Your task to perform on an android device: see creations saved in the google photos Image 0: 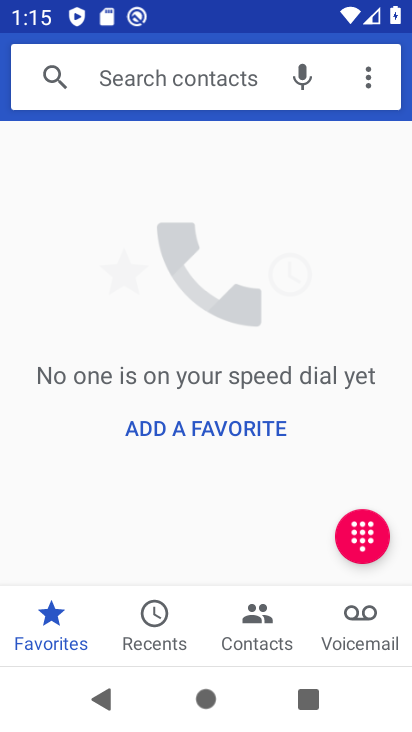
Step 0: press home button
Your task to perform on an android device: see creations saved in the google photos Image 1: 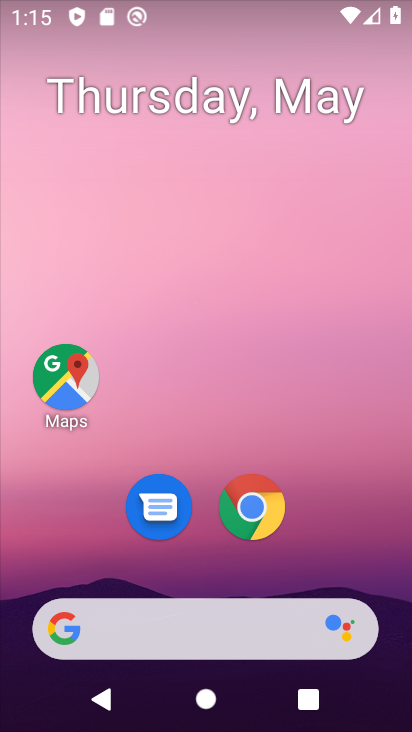
Step 1: drag from (312, 570) to (318, 196)
Your task to perform on an android device: see creations saved in the google photos Image 2: 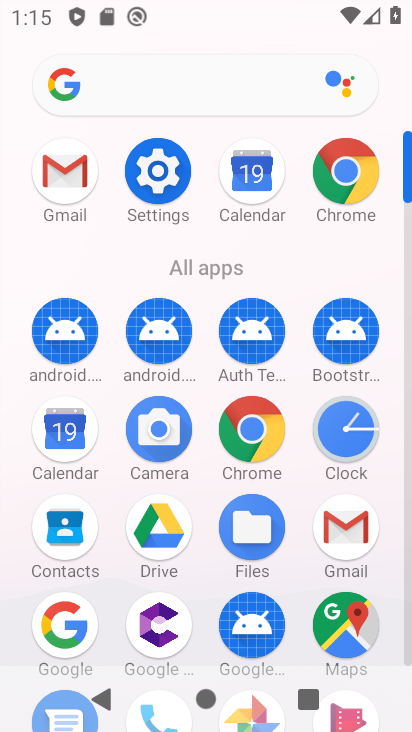
Step 2: drag from (192, 596) to (242, 269)
Your task to perform on an android device: see creations saved in the google photos Image 3: 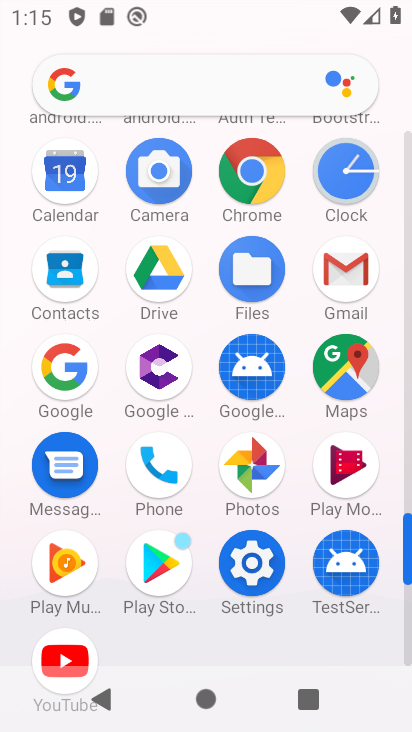
Step 3: click (259, 465)
Your task to perform on an android device: see creations saved in the google photos Image 4: 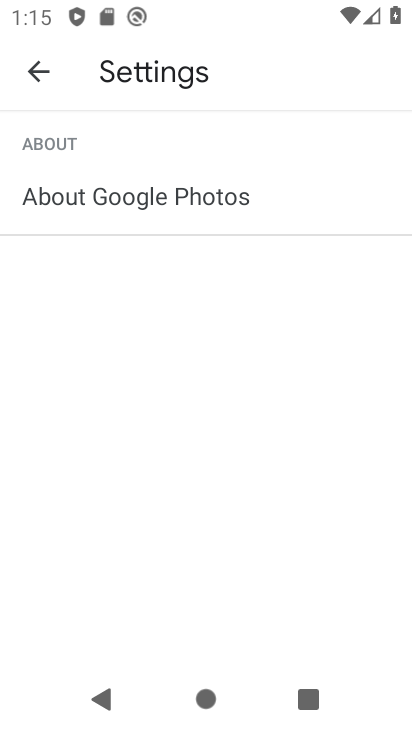
Step 4: click (48, 67)
Your task to perform on an android device: see creations saved in the google photos Image 5: 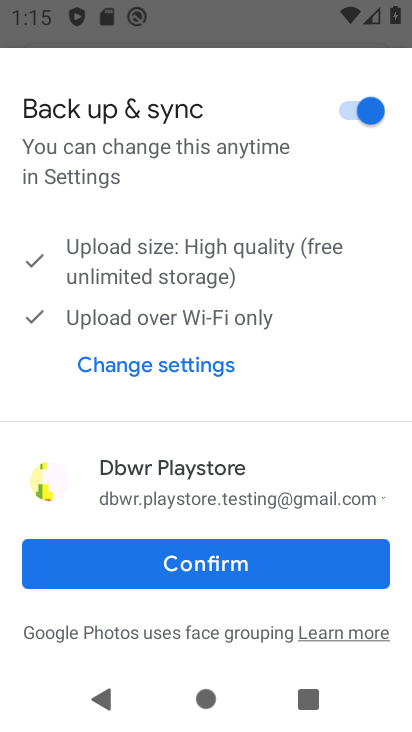
Step 5: click (165, 553)
Your task to perform on an android device: see creations saved in the google photos Image 6: 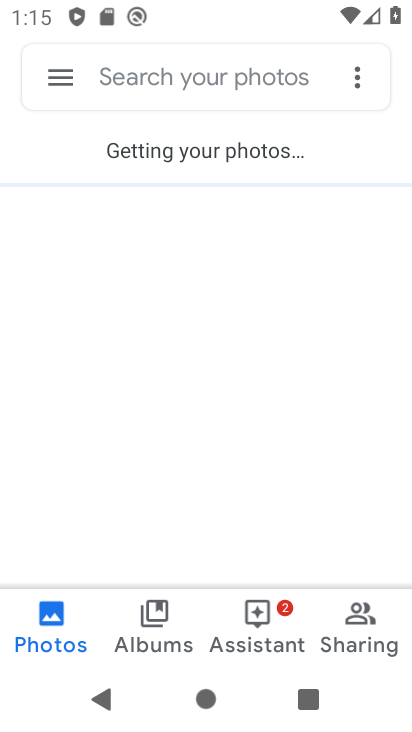
Step 6: click (158, 605)
Your task to perform on an android device: see creations saved in the google photos Image 7: 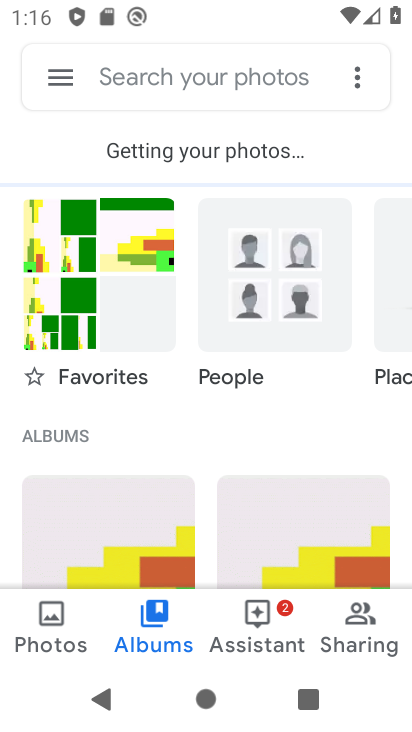
Step 7: click (61, 222)
Your task to perform on an android device: see creations saved in the google photos Image 8: 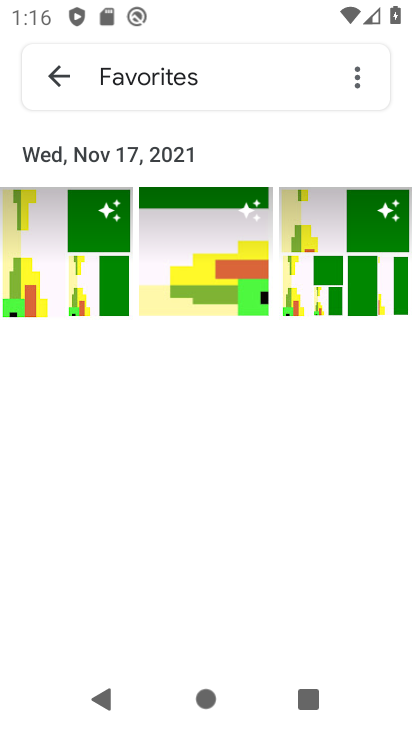
Step 8: click (32, 259)
Your task to perform on an android device: see creations saved in the google photos Image 9: 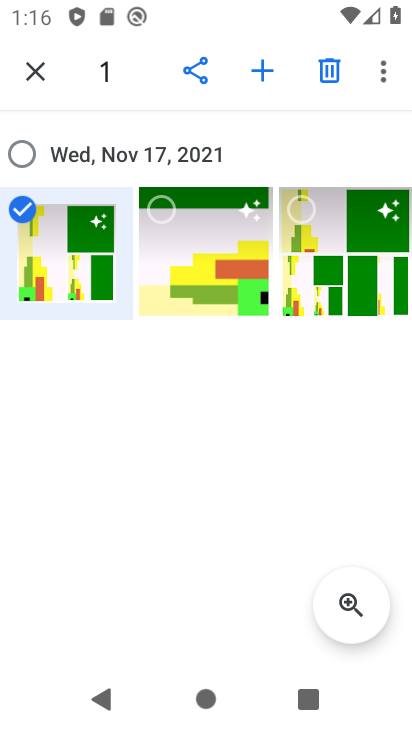
Step 9: click (261, 68)
Your task to perform on an android device: see creations saved in the google photos Image 10: 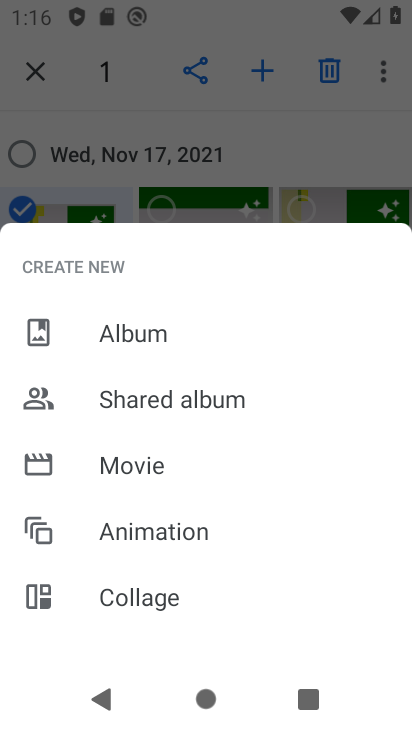
Step 10: click (137, 338)
Your task to perform on an android device: see creations saved in the google photos Image 11: 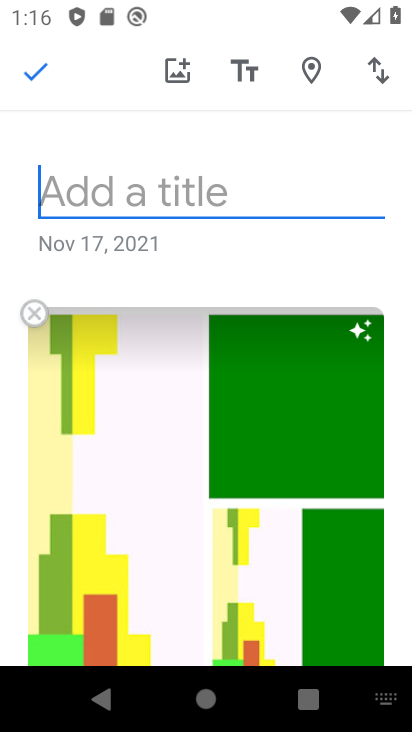
Step 11: click (183, 178)
Your task to perform on an android device: see creations saved in the google photos Image 12: 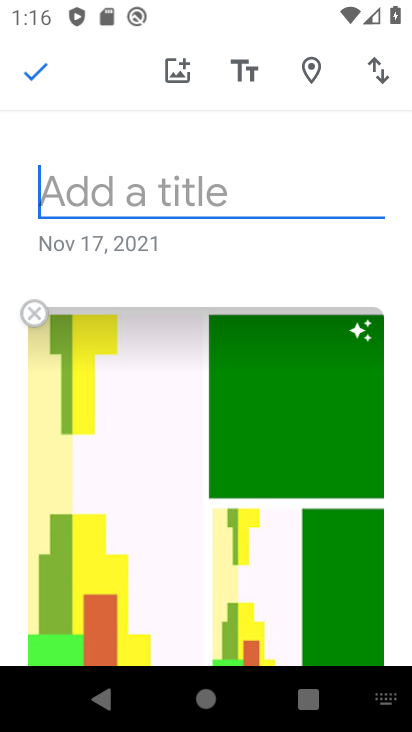
Step 12: type "kkkkjkjkdddd"
Your task to perform on an android device: see creations saved in the google photos Image 13: 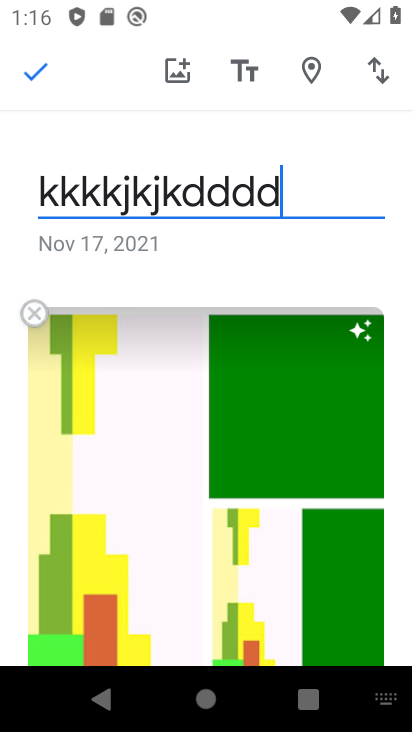
Step 13: click (36, 70)
Your task to perform on an android device: see creations saved in the google photos Image 14: 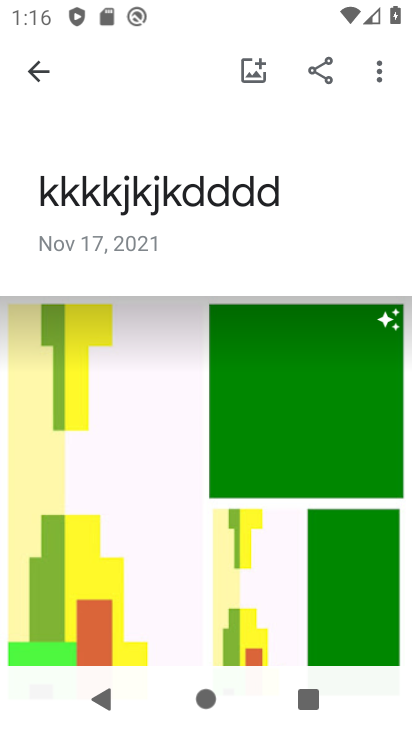
Step 14: task complete